Your task to perform on an android device: turn on airplane mode Image 0: 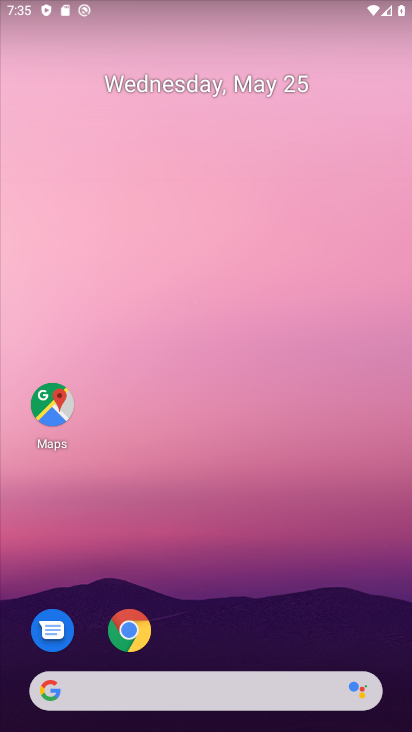
Step 0: drag from (213, 659) to (254, 192)
Your task to perform on an android device: turn on airplane mode Image 1: 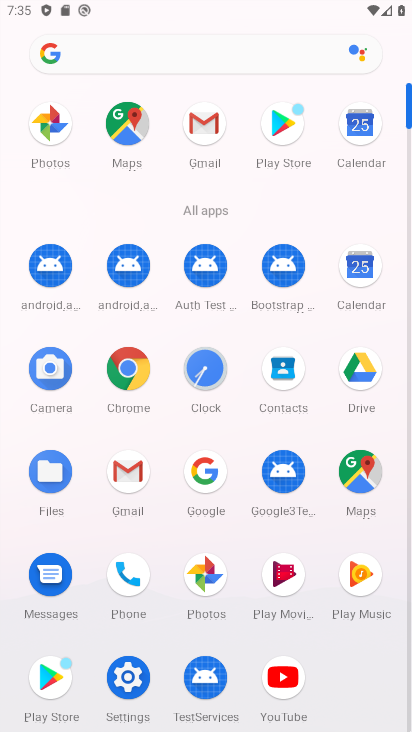
Step 1: click (123, 683)
Your task to perform on an android device: turn on airplane mode Image 2: 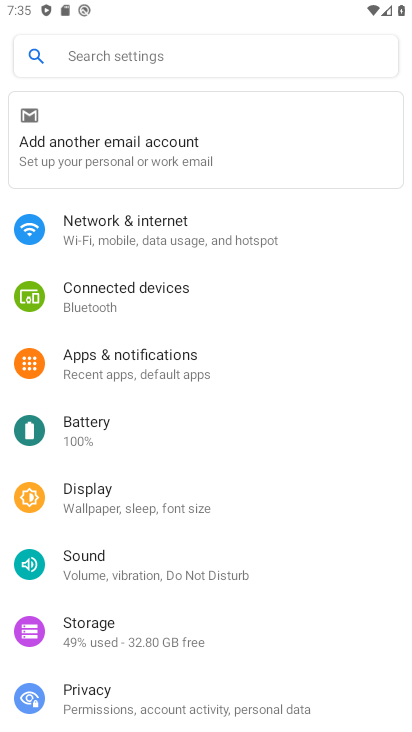
Step 2: click (128, 242)
Your task to perform on an android device: turn on airplane mode Image 3: 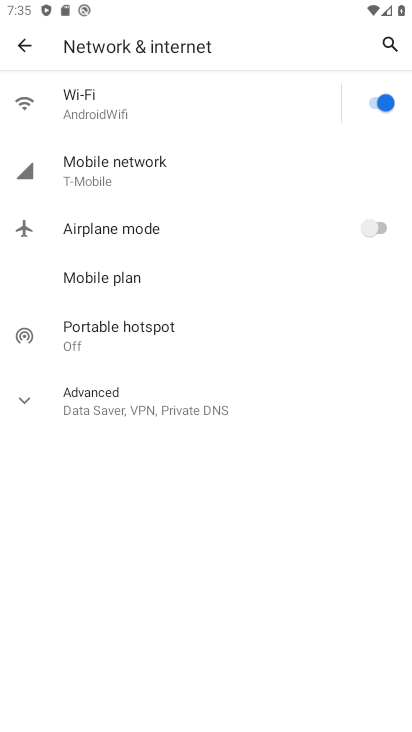
Step 3: click (377, 226)
Your task to perform on an android device: turn on airplane mode Image 4: 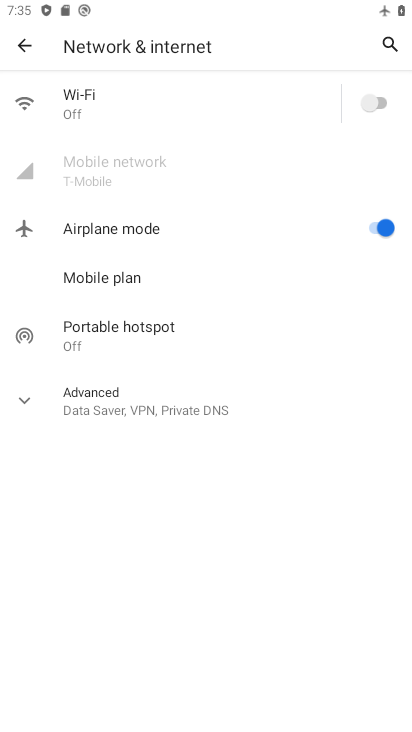
Step 4: task complete